Your task to perform on an android device: Go to eBay Image 0: 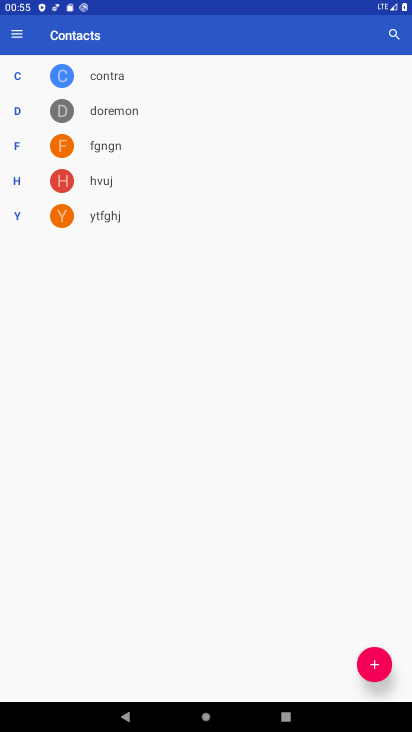
Step 0: press home button
Your task to perform on an android device: Go to eBay Image 1: 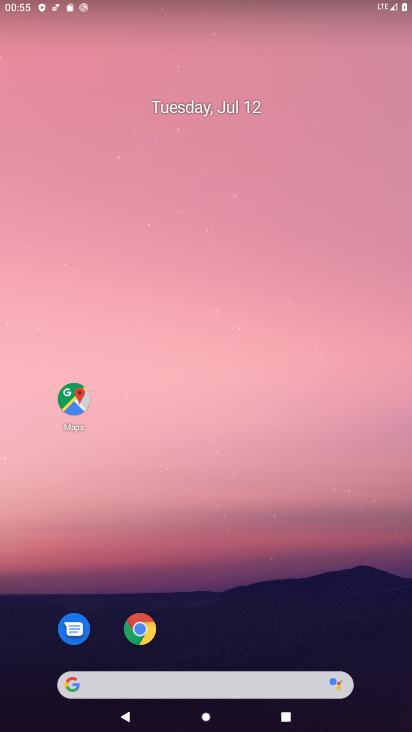
Step 1: click (144, 685)
Your task to perform on an android device: Go to eBay Image 2: 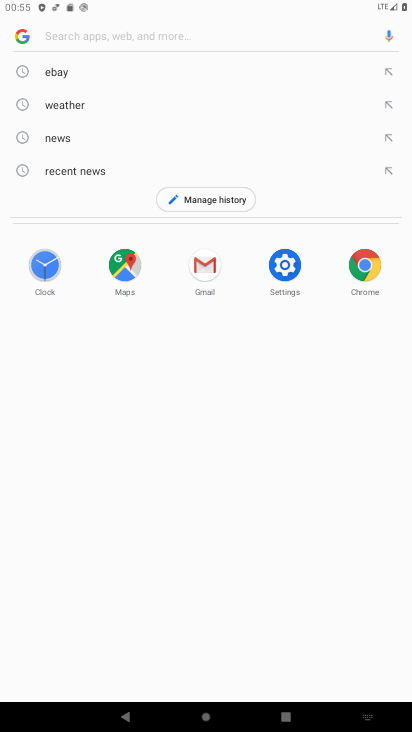
Step 2: type " eBay"
Your task to perform on an android device: Go to eBay Image 3: 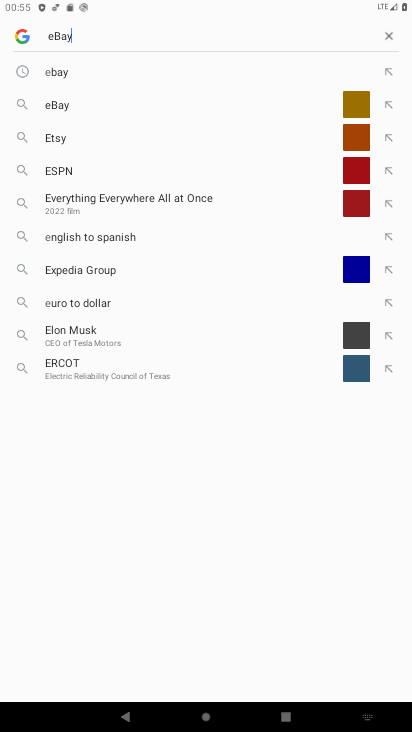
Step 3: type ""
Your task to perform on an android device: Go to eBay Image 4: 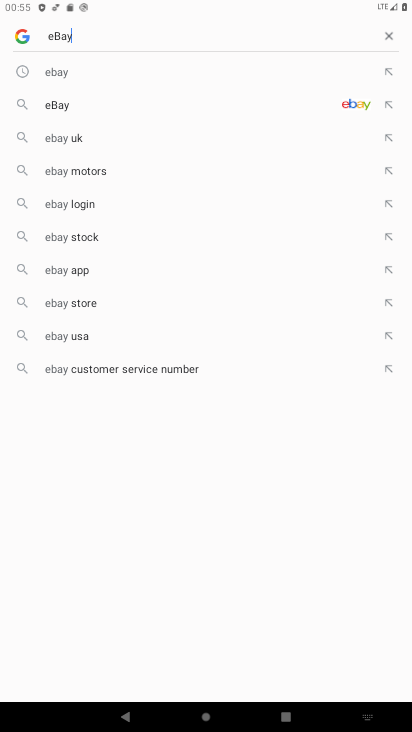
Step 4: click (47, 66)
Your task to perform on an android device: Go to eBay Image 5: 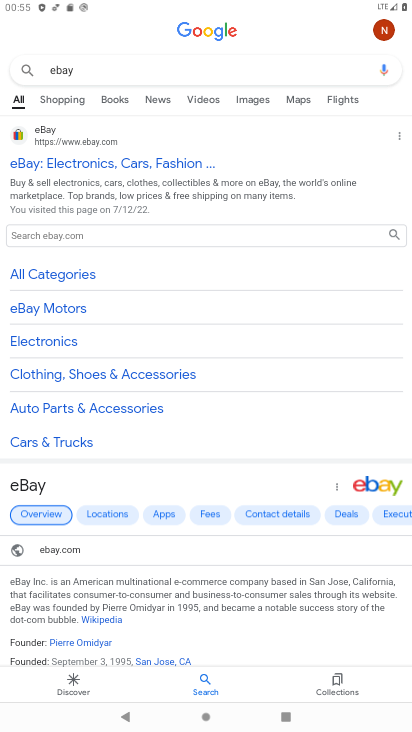
Step 5: task complete